Your task to perform on an android device: Go to calendar. Show me events next week Image 0: 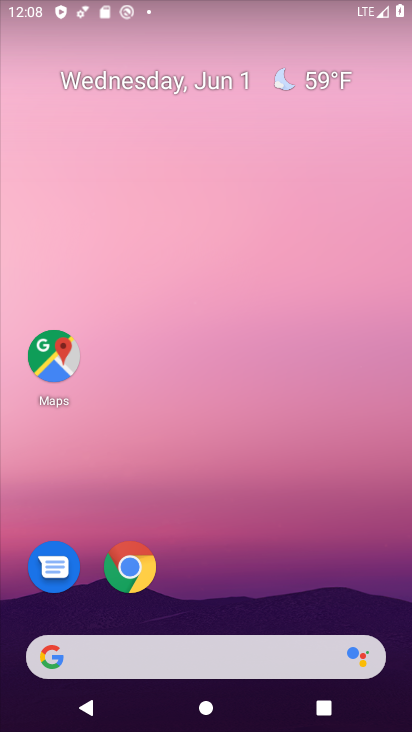
Step 0: drag from (236, 604) to (204, 194)
Your task to perform on an android device: Go to calendar. Show me events next week Image 1: 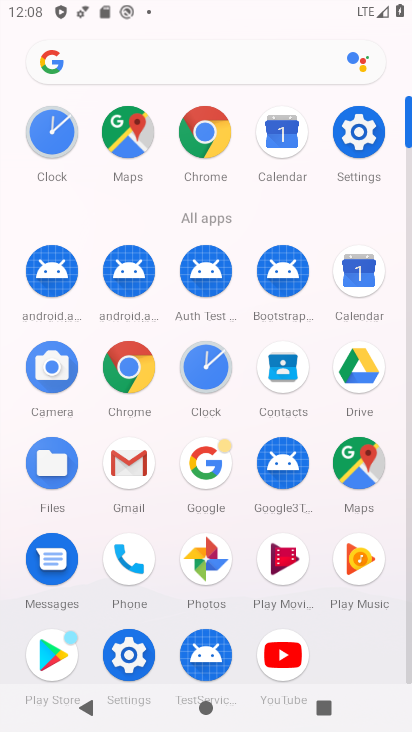
Step 1: click (350, 270)
Your task to perform on an android device: Go to calendar. Show me events next week Image 2: 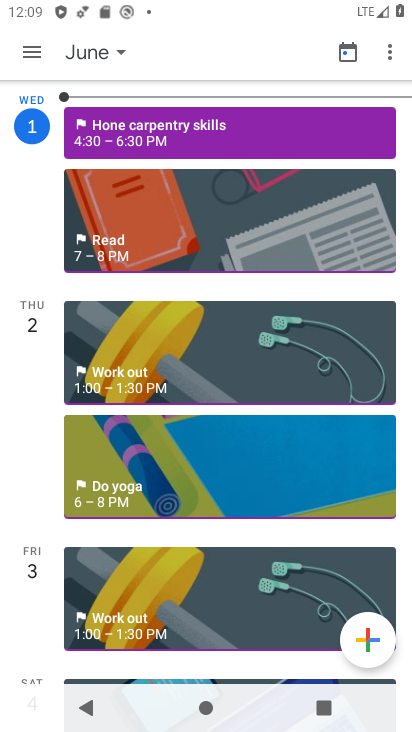
Step 2: click (29, 59)
Your task to perform on an android device: Go to calendar. Show me events next week Image 3: 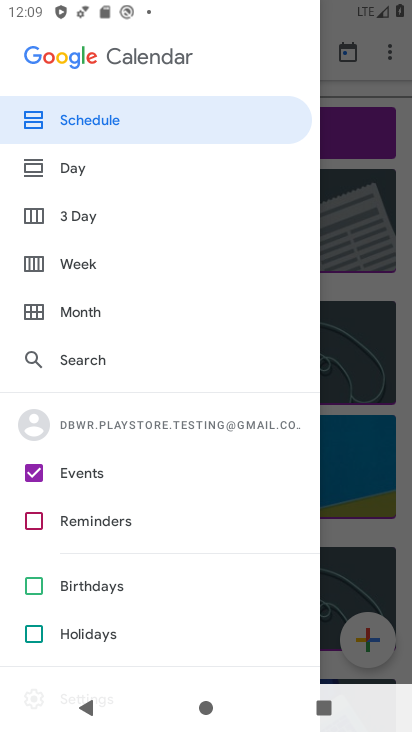
Step 3: click (76, 267)
Your task to perform on an android device: Go to calendar. Show me events next week Image 4: 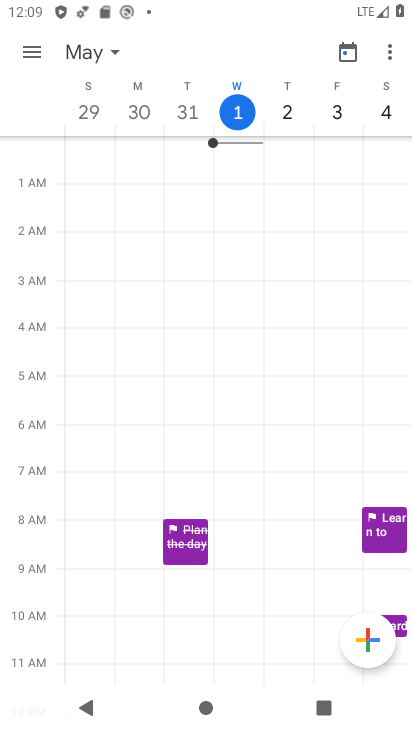
Step 4: click (106, 49)
Your task to perform on an android device: Go to calendar. Show me events next week Image 5: 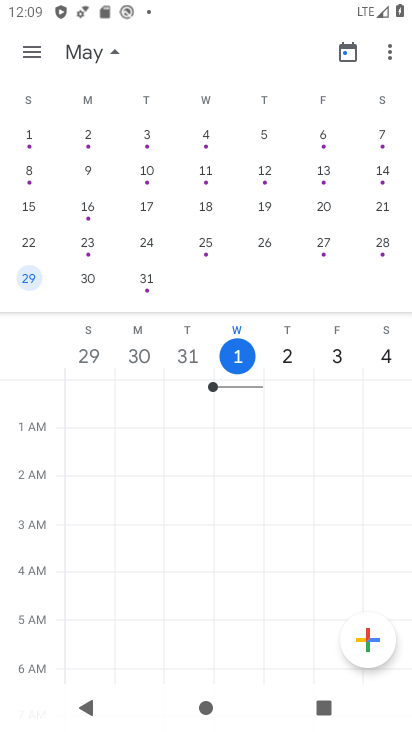
Step 5: drag from (389, 215) to (29, 236)
Your task to perform on an android device: Go to calendar. Show me events next week Image 6: 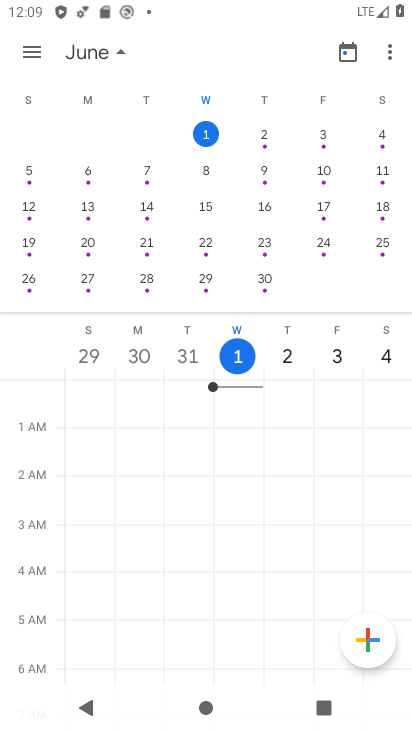
Step 6: click (198, 167)
Your task to perform on an android device: Go to calendar. Show me events next week Image 7: 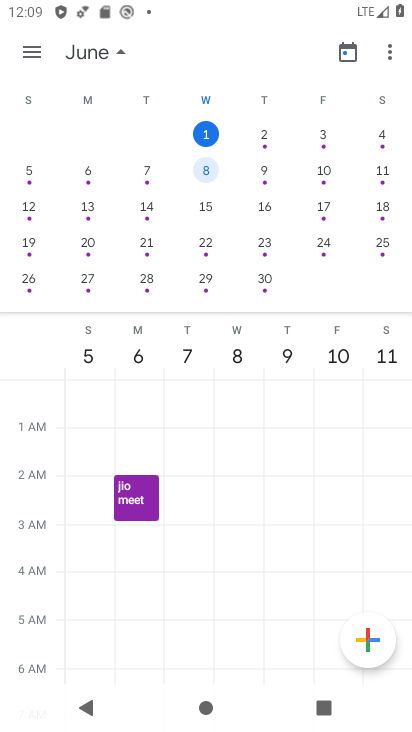
Step 7: task complete